Your task to perform on an android device: Go to notification settings Image 0: 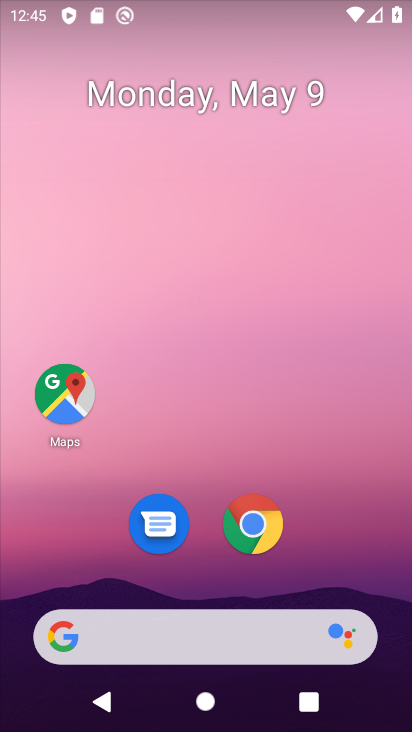
Step 0: drag from (330, 536) to (329, 24)
Your task to perform on an android device: Go to notification settings Image 1: 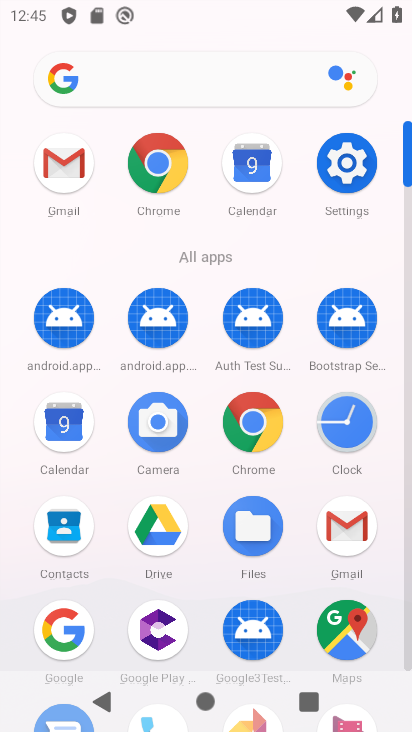
Step 1: drag from (191, 578) to (182, 299)
Your task to perform on an android device: Go to notification settings Image 2: 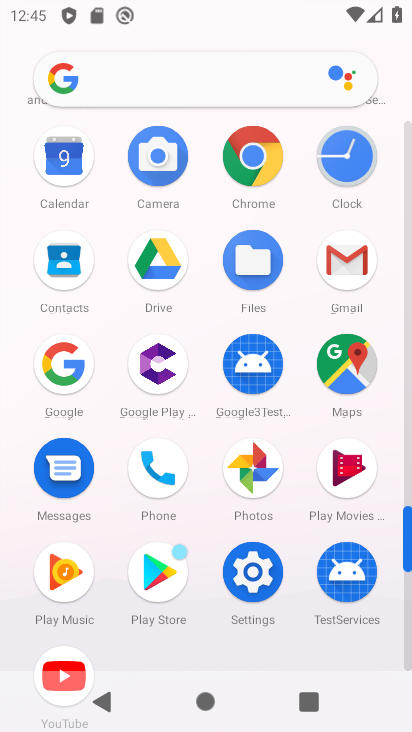
Step 2: click (335, 355)
Your task to perform on an android device: Go to notification settings Image 3: 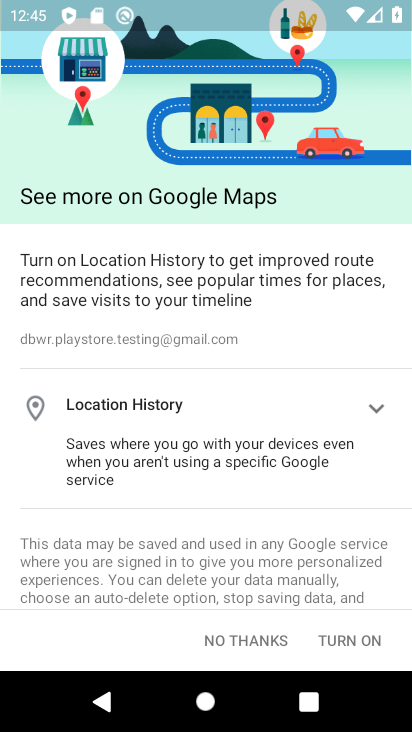
Step 3: press home button
Your task to perform on an android device: Go to notification settings Image 4: 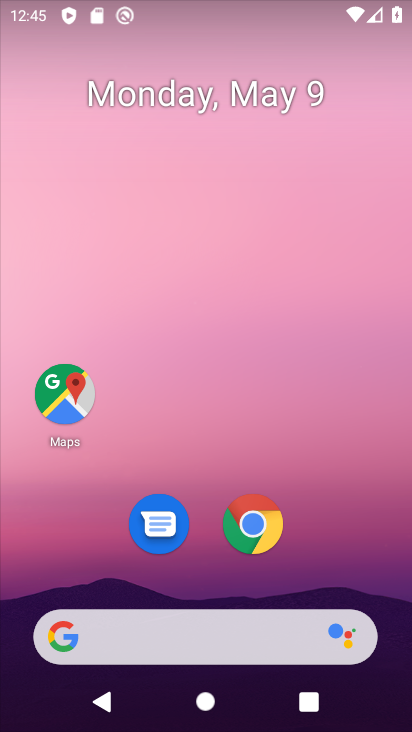
Step 4: drag from (293, 563) to (311, 75)
Your task to perform on an android device: Go to notification settings Image 5: 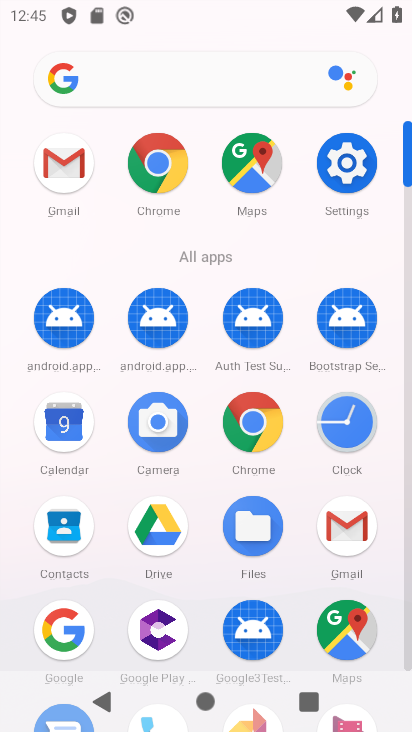
Step 5: click (345, 164)
Your task to perform on an android device: Go to notification settings Image 6: 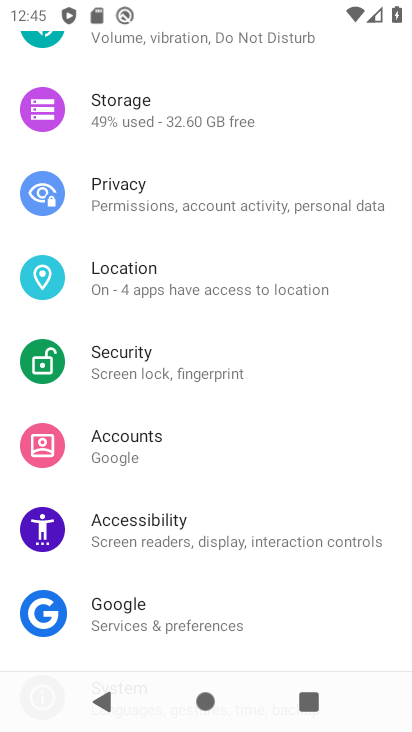
Step 6: drag from (198, 141) to (193, 671)
Your task to perform on an android device: Go to notification settings Image 7: 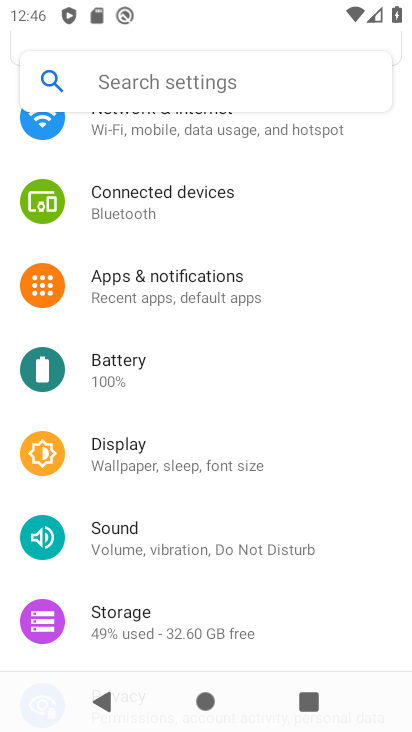
Step 7: click (230, 279)
Your task to perform on an android device: Go to notification settings Image 8: 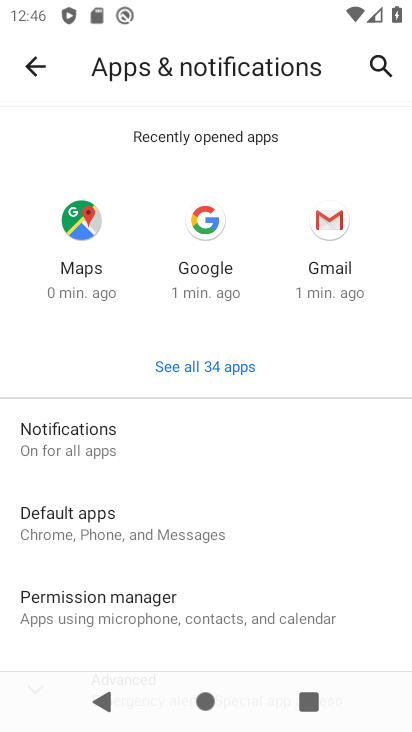
Step 8: click (86, 436)
Your task to perform on an android device: Go to notification settings Image 9: 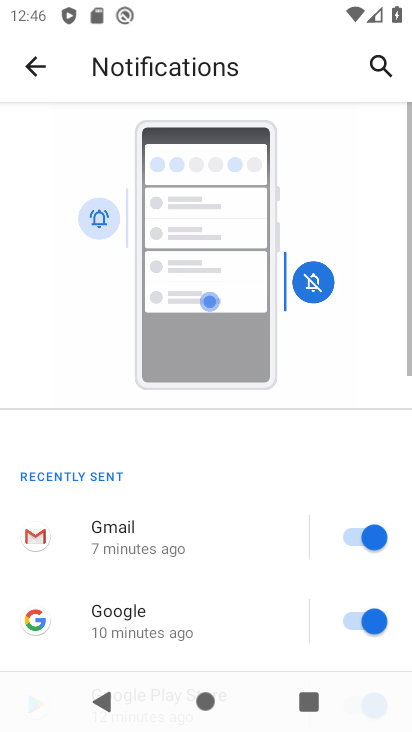
Step 9: task complete